Your task to perform on an android device: open app "Spotify" Image 0: 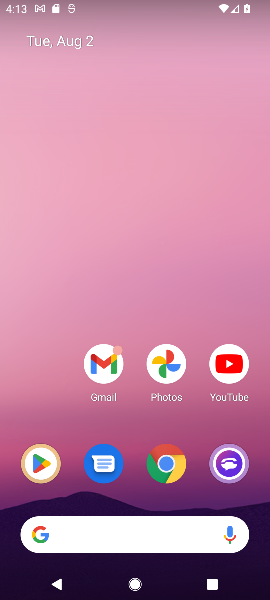
Step 0: click (40, 464)
Your task to perform on an android device: open app "Spotify" Image 1: 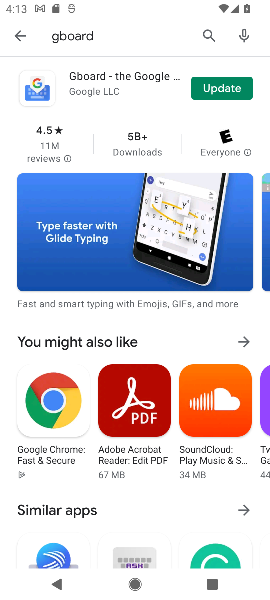
Step 1: click (205, 33)
Your task to perform on an android device: open app "Spotify" Image 2: 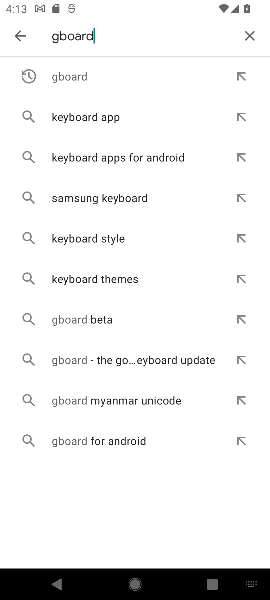
Step 2: click (249, 34)
Your task to perform on an android device: open app "Spotify" Image 3: 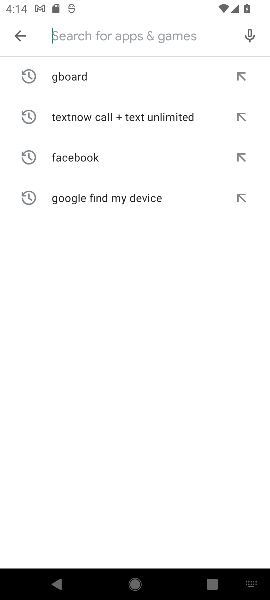
Step 3: type "Spotify"
Your task to perform on an android device: open app "Spotify" Image 4: 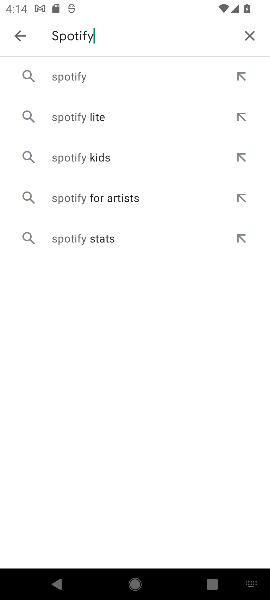
Step 4: click (85, 80)
Your task to perform on an android device: open app "Spotify" Image 5: 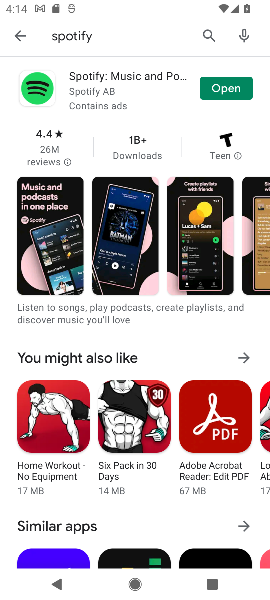
Step 5: click (225, 86)
Your task to perform on an android device: open app "Spotify" Image 6: 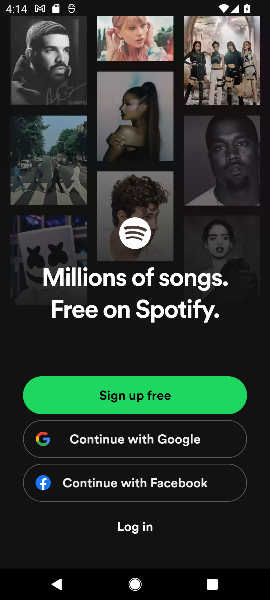
Step 6: task complete